Your task to perform on an android device: Open calendar and show me the first week of next month Image 0: 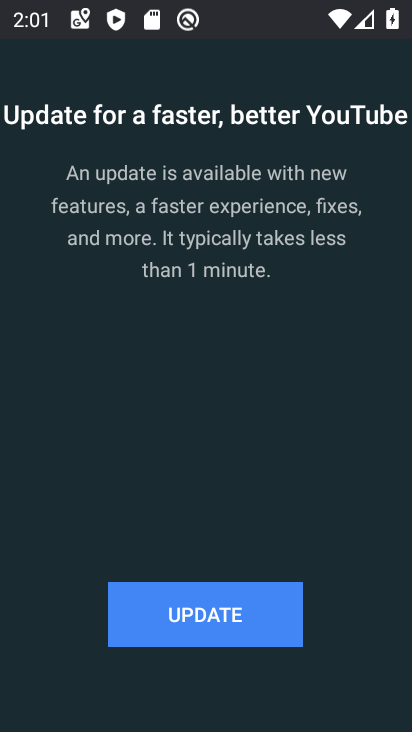
Step 0: press home button
Your task to perform on an android device: Open calendar and show me the first week of next month Image 1: 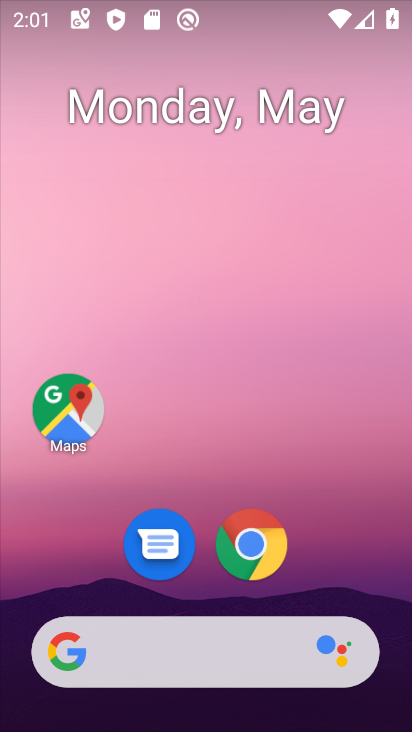
Step 1: drag from (366, 587) to (361, 286)
Your task to perform on an android device: Open calendar and show me the first week of next month Image 2: 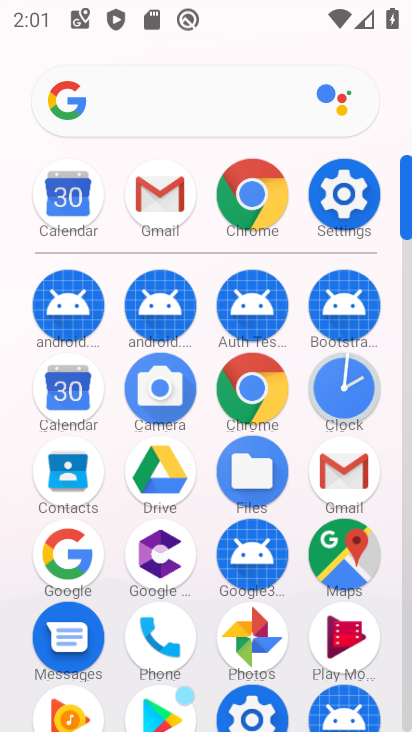
Step 2: click (61, 395)
Your task to perform on an android device: Open calendar and show me the first week of next month Image 3: 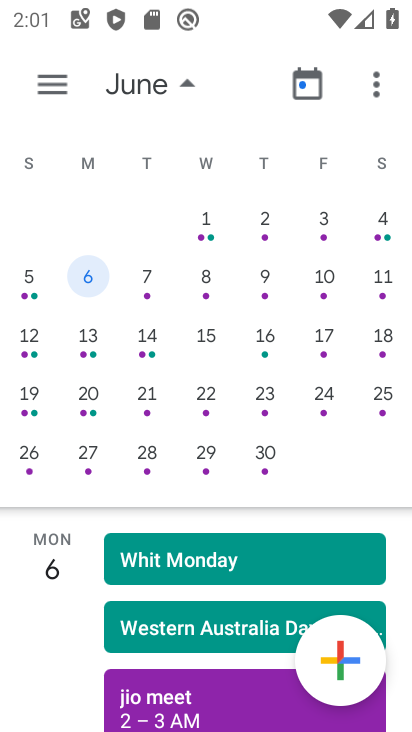
Step 3: click (202, 231)
Your task to perform on an android device: Open calendar and show me the first week of next month Image 4: 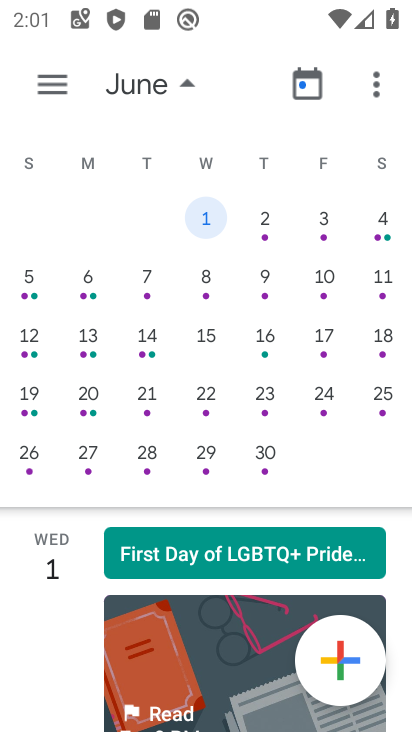
Step 4: task complete